Your task to perform on an android device: find photos in the google photos app Image 0: 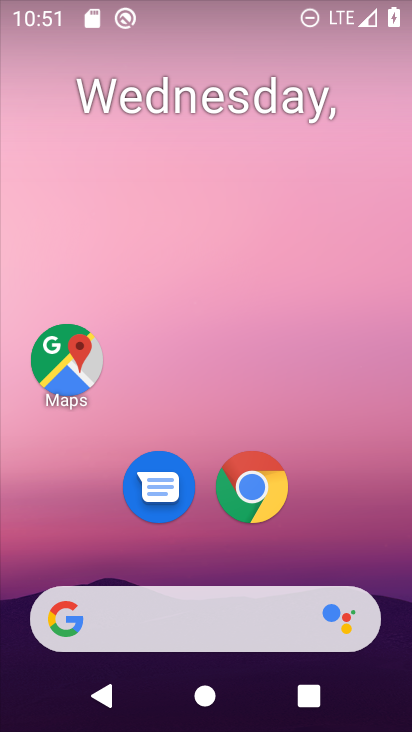
Step 0: drag from (345, 514) to (222, 39)
Your task to perform on an android device: find photos in the google photos app Image 1: 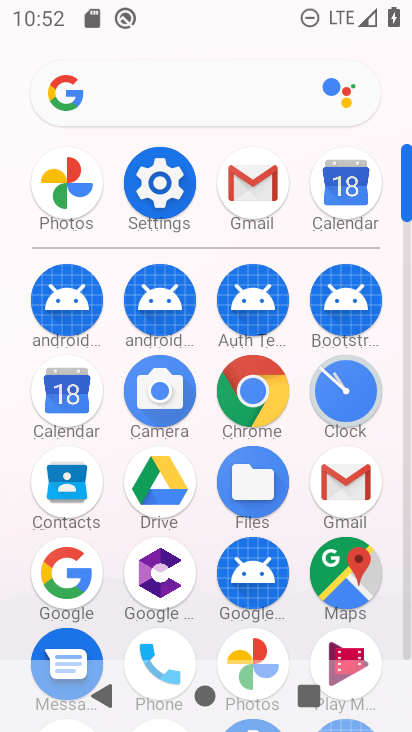
Step 1: click (251, 646)
Your task to perform on an android device: find photos in the google photos app Image 2: 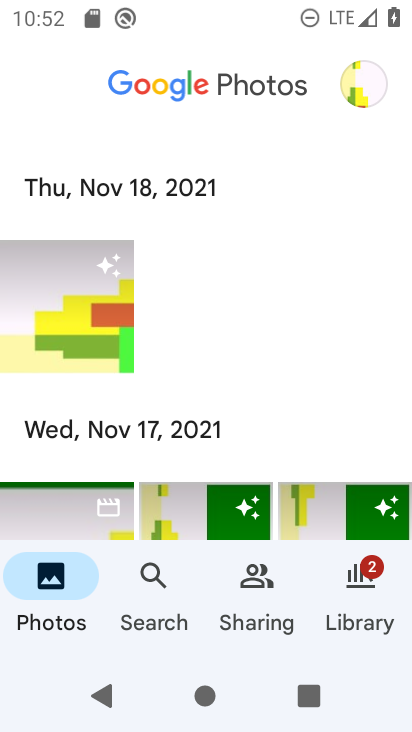
Step 2: click (148, 585)
Your task to perform on an android device: find photos in the google photos app Image 3: 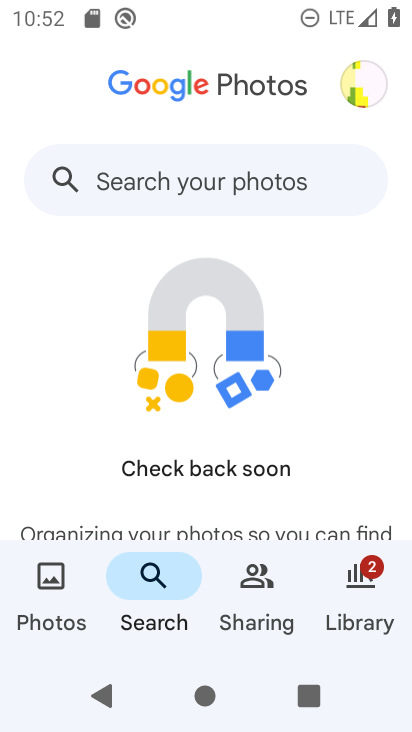
Step 3: task complete